Your task to perform on an android device: Search for Mexican restaurants on Maps Image 0: 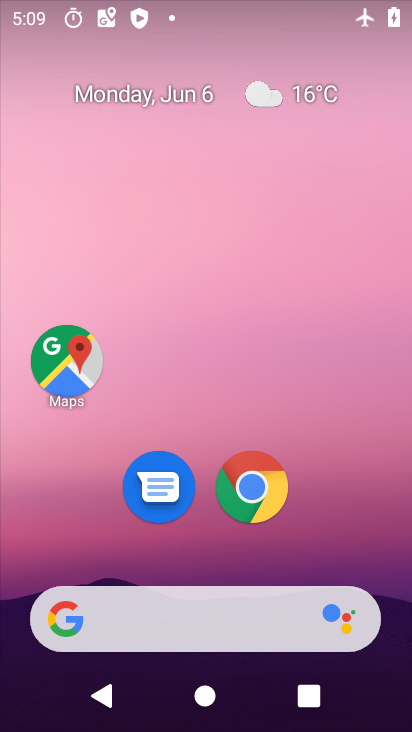
Step 0: click (74, 366)
Your task to perform on an android device: Search for Mexican restaurants on Maps Image 1: 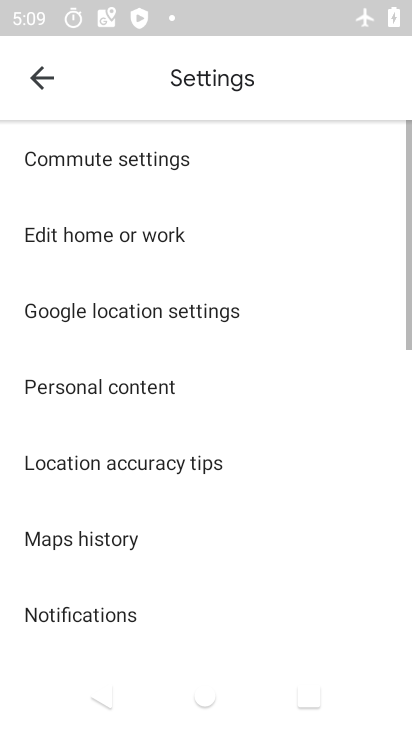
Step 1: click (39, 73)
Your task to perform on an android device: Search for Mexican restaurants on Maps Image 2: 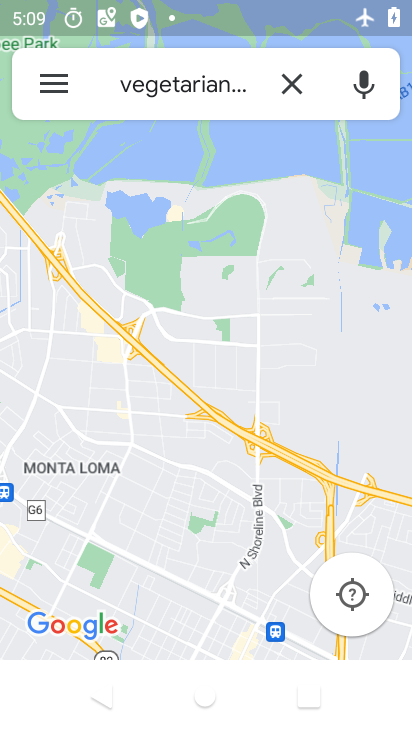
Step 2: click (222, 80)
Your task to perform on an android device: Search for Mexican restaurants on Maps Image 3: 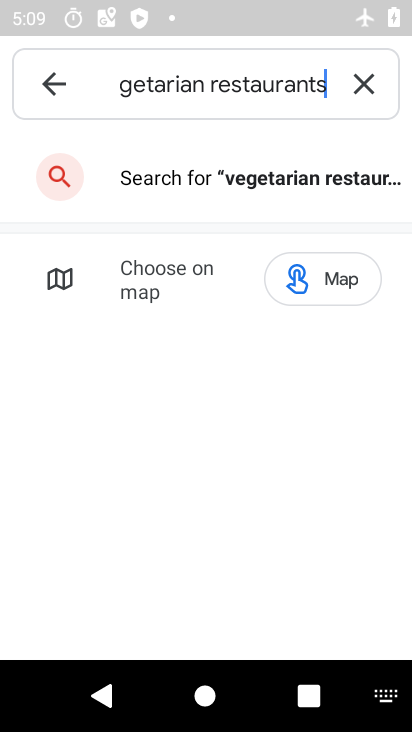
Step 3: click (356, 82)
Your task to perform on an android device: Search for Mexican restaurants on Maps Image 4: 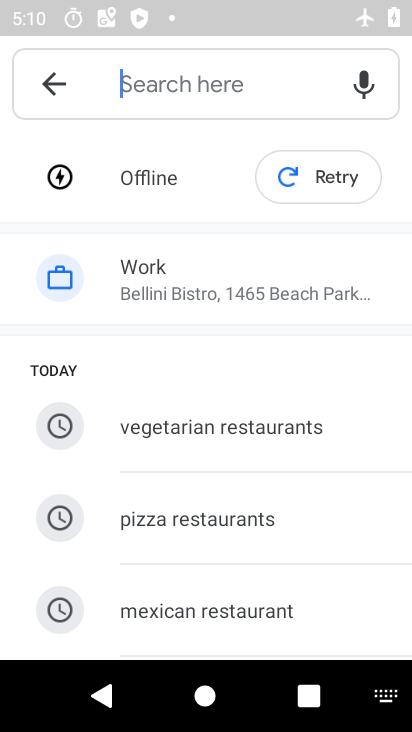
Step 4: type "Mexican restaurants"
Your task to perform on an android device: Search for Mexican restaurants on Maps Image 5: 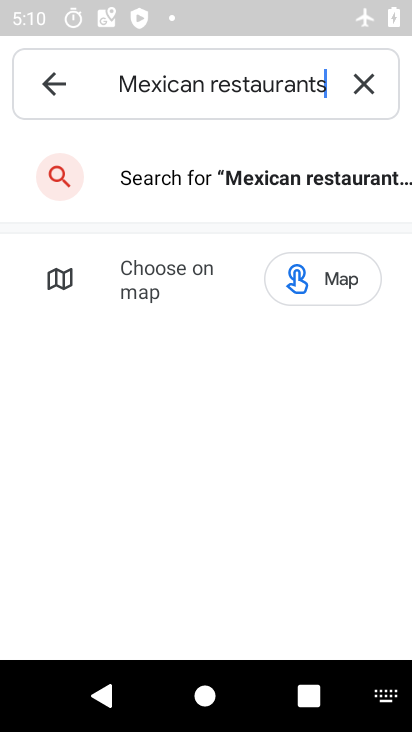
Step 5: press enter
Your task to perform on an android device: Search for Mexican restaurants on Maps Image 6: 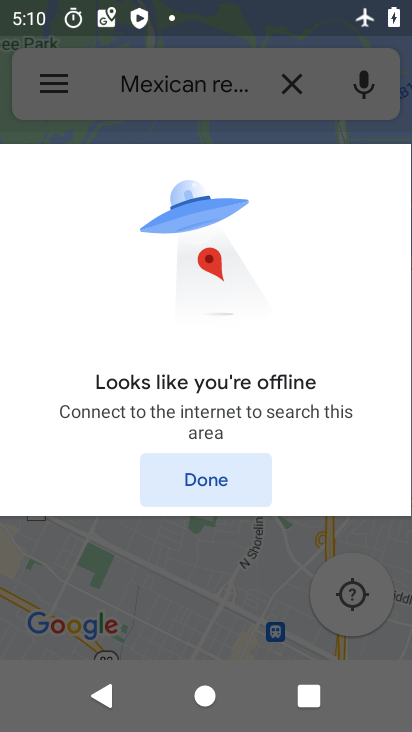
Step 6: task complete